Your task to perform on an android device: Open Youtube and go to "Your channel" Image 0: 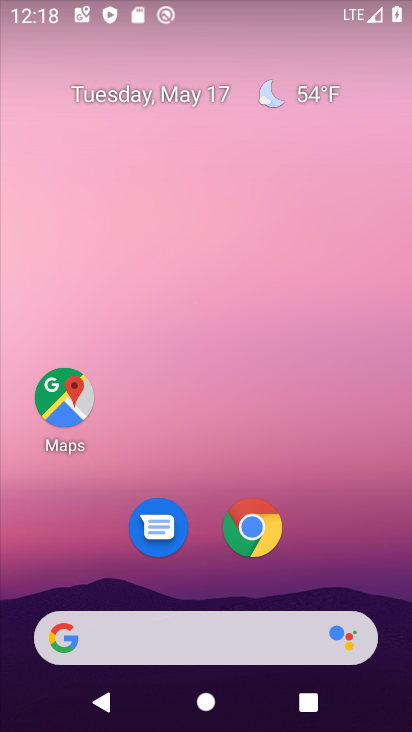
Step 0: drag from (249, 656) to (208, 233)
Your task to perform on an android device: Open Youtube and go to "Your channel" Image 1: 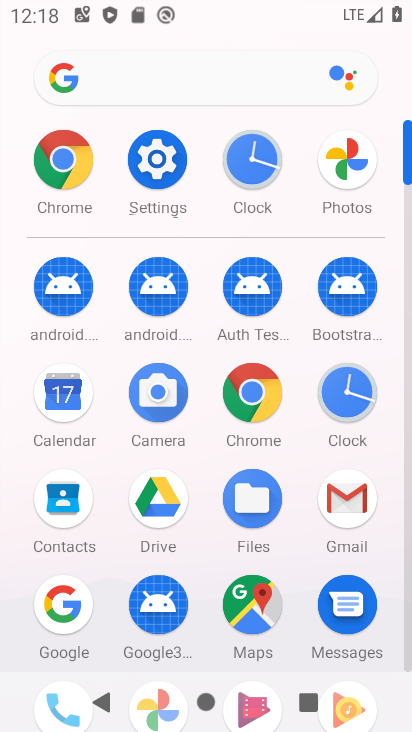
Step 1: drag from (190, 549) to (218, 327)
Your task to perform on an android device: Open Youtube and go to "Your channel" Image 2: 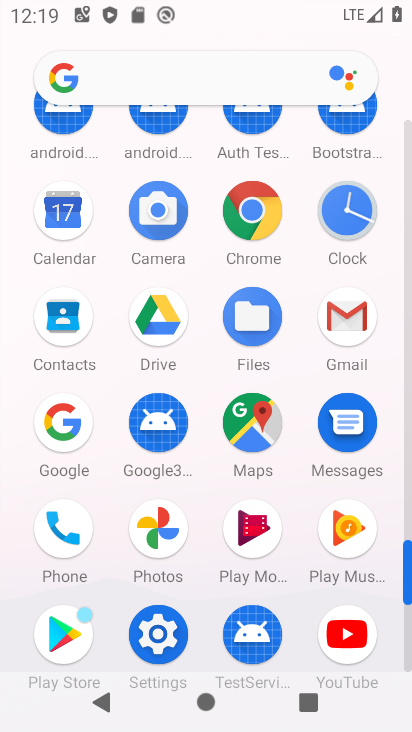
Step 2: click (339, 639)
Your task to perform on an android device: Open Youtube and go to "Your channel" Image 3: 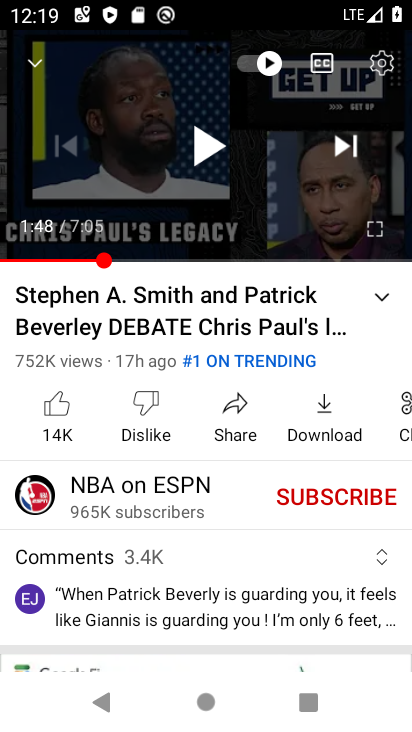
Step 3: click (36, 54)
Your task to perform on an android device: Open Youtube and go to "Your channel" Image 4: 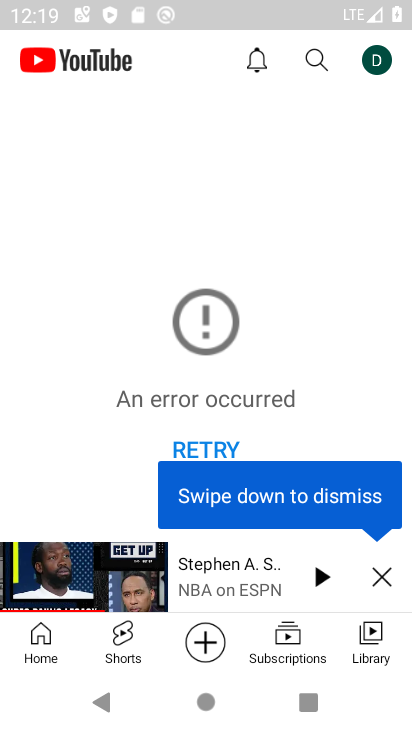
Step 4: click (388, 55)
Your task to perform on an android device: Open Youtube and go to "Your channel" Image 5: 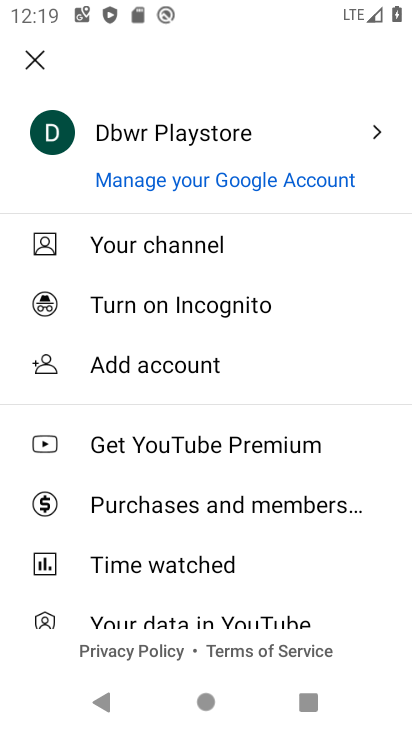
Step 5: click (143, 230)
Your task to perform on an android device: Open Youtube and go to "Your channel" Image 6: 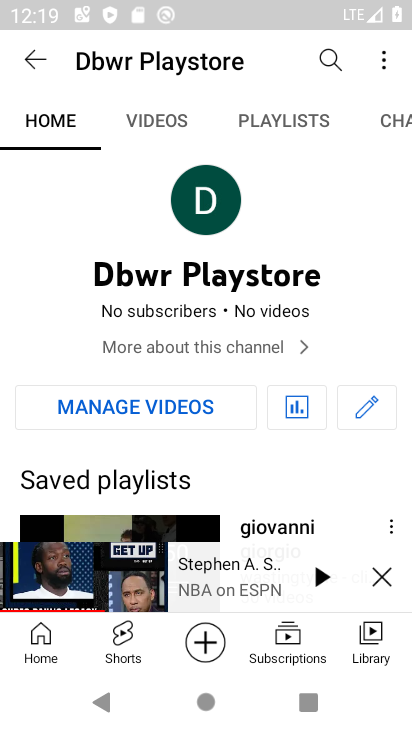
Step 6: click (382, 569)
Your task to perform on an android device: Open Youtube and go to "Your channel" Image 7: 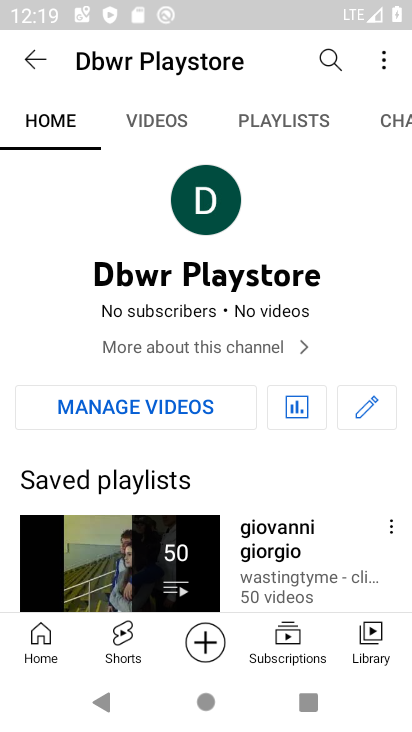
Step 7: task complete